Your task to perform on an android device: Go to internet settings Image 0: 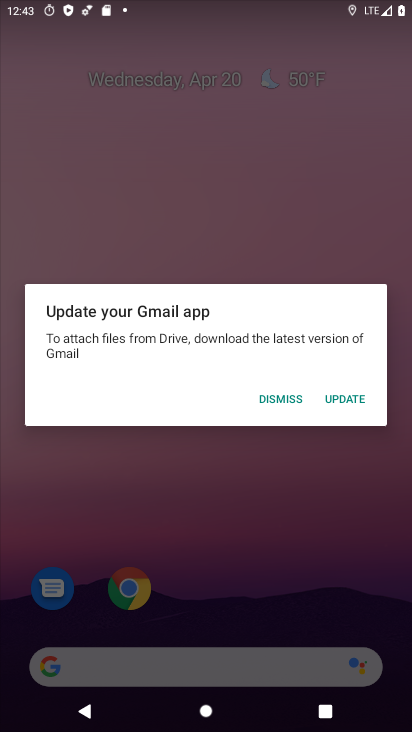
Step 0: press home button
Your task to perform on an android device: Go to internet settings Image 1: 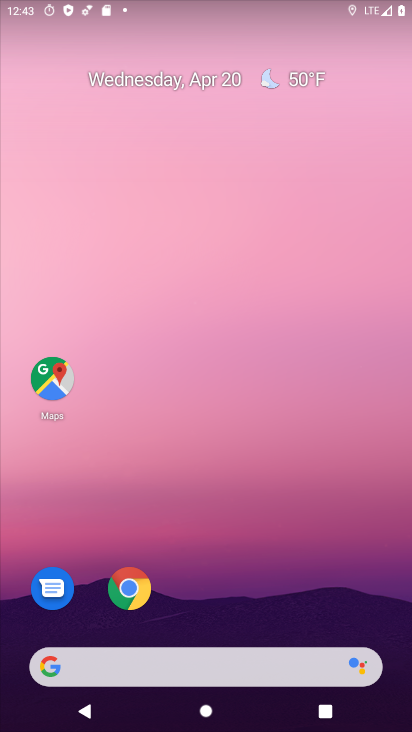
Step 1: drag from (221, 629) to (202, 16)
Your task to perform on an android device: Go to internet settings Image 2: 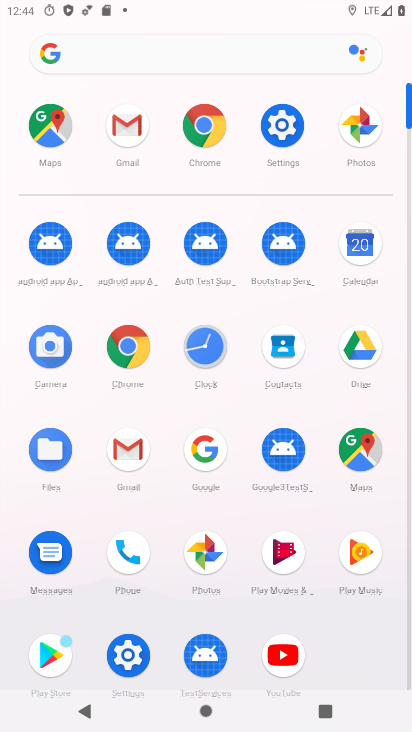
Step 2: click (278, 120)
Your task to perform on an android device: Go to internet settings Image 3: 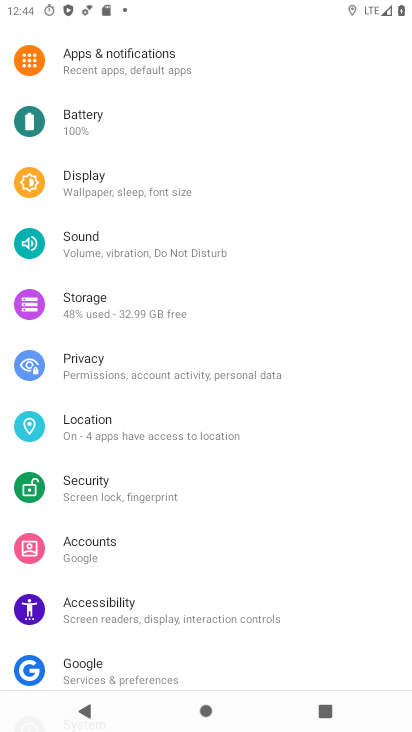
Step 3: drag from (100, 44) to (120, 486)
Your task to perform on an android device: Go to internet settings Image 4: 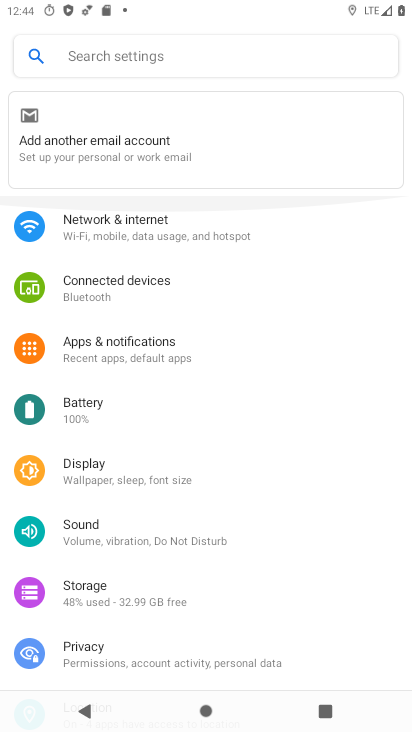
Step 4: click (163, 219)
Your task to perform on an android device: Go to internet settings Image 5: 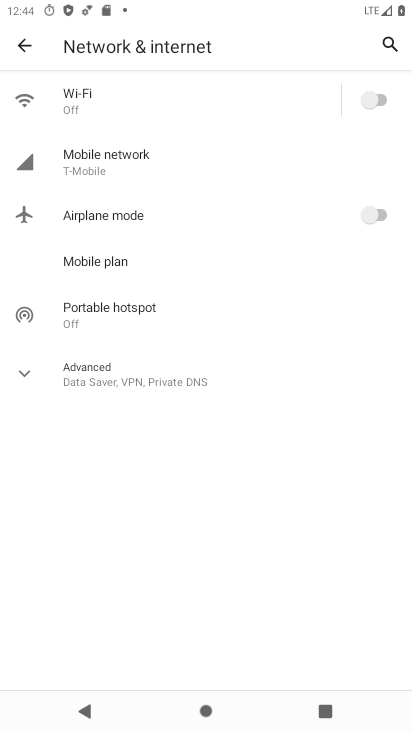
Step 5: click (129, 146)
Your task to perform on an android device: Go to internet settings Image 6: 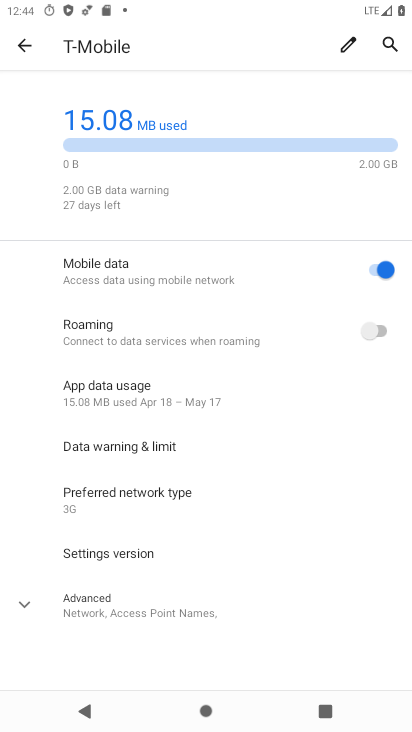
Step 6: drag from (168, 504) to (121, 218)
Your task to perform on an android device: Go to internet settings Image 7: 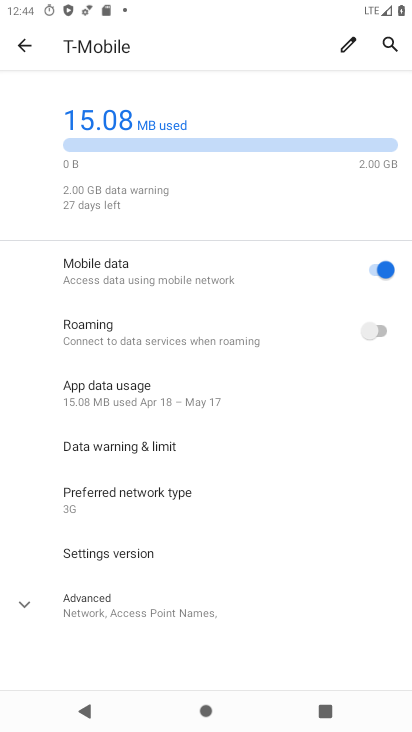
Step 7: click (134, 586)
Your task to perform on an android device: Go to internet settings Image 8: 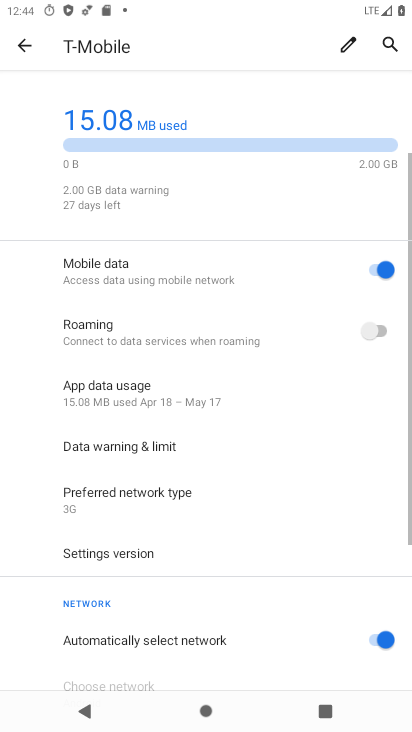
Step 8: task complete